Your task to perform on an android device: Show me the alarms in the clock app Image 0: 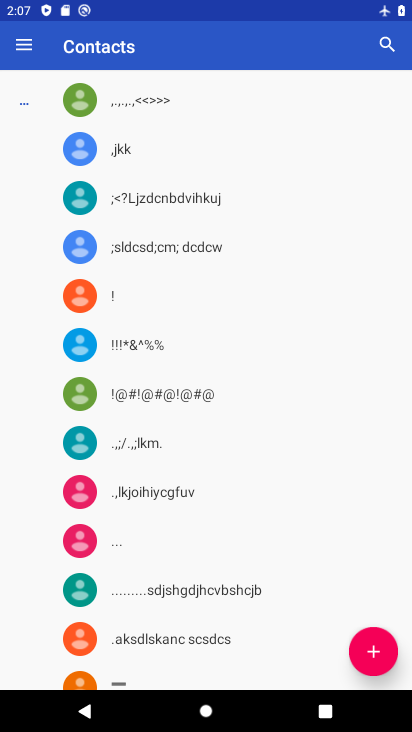
Step 0: press home button
Your task to perform on an android device: Show me the alarms in the clock app Image 1: 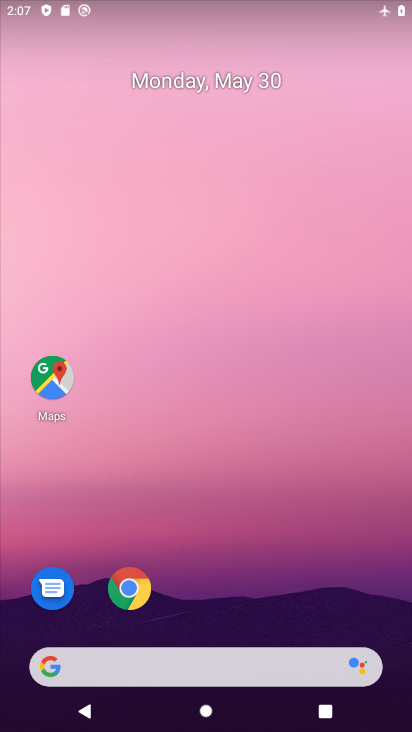
Step 1: drag from (215, 625) to (215, 252)
Your task to perform on an android device: Show me the alarms in the clock app Image 2: 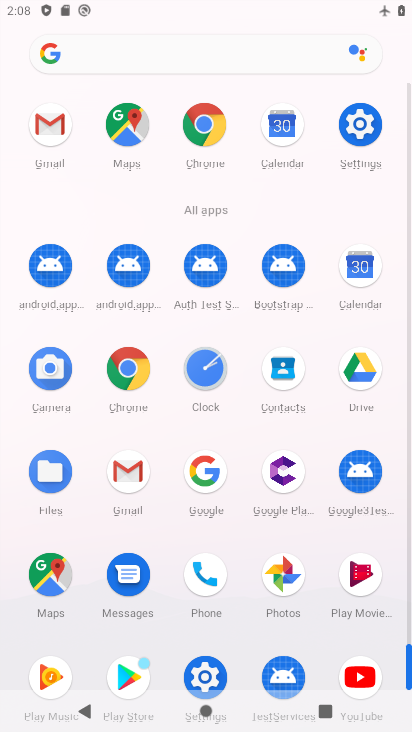
Step 2: click (206, 359)
Your task to perform on an android device: Show me the alarms in the clock app Image 3: 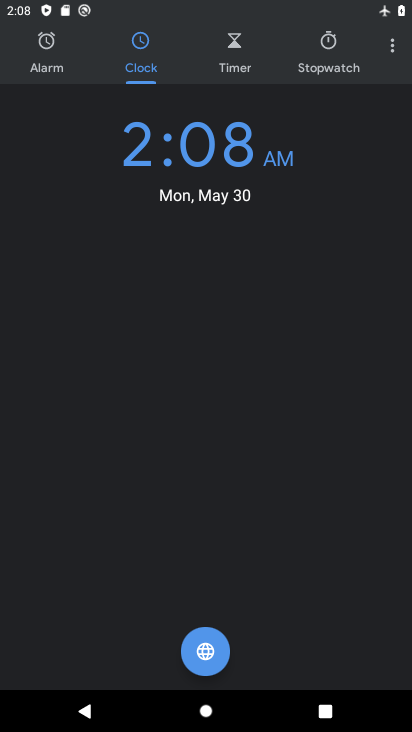
Step 3: click (56, 39)
Your task to perform on an android device: Show me the alarms in the clock app Image 4: 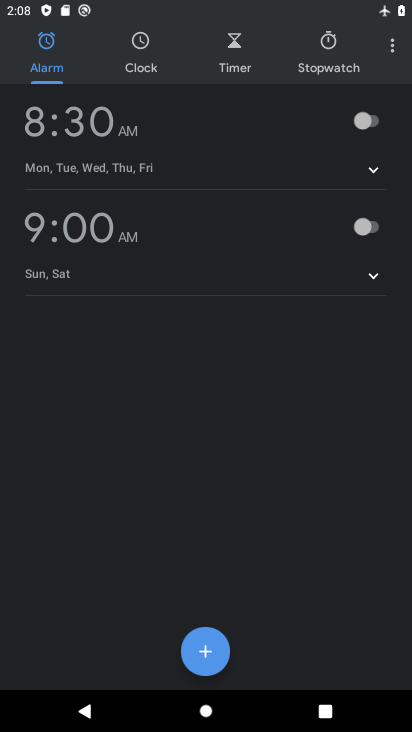
Step 4: task complete